Your task to perform on an android device: Go to Reddit.com Image 0: 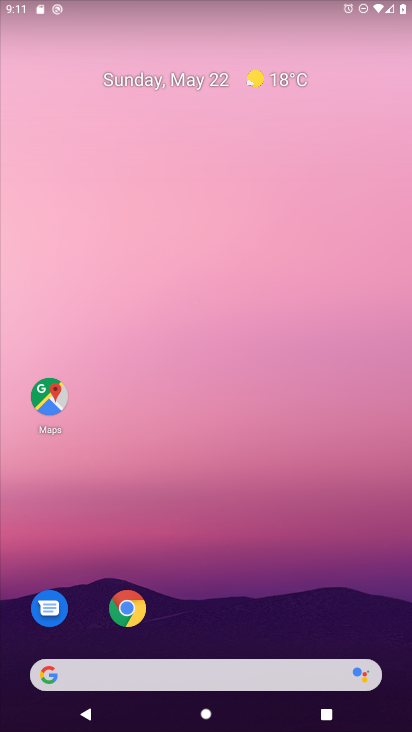
Step 0: click (126, 609)
Your task to perform on an android device: Go to Reddit.com Image 1: 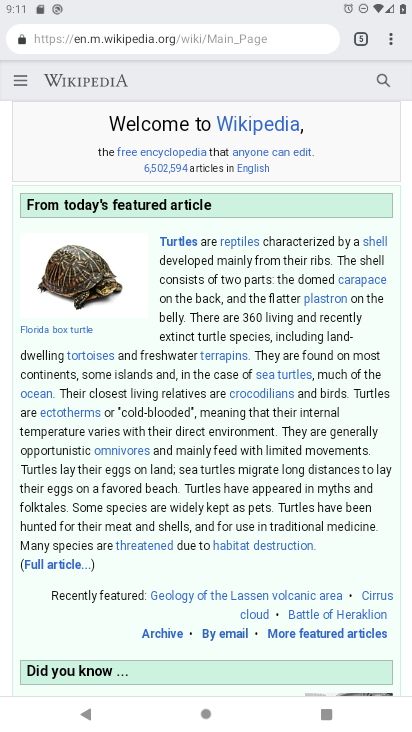
Step 1: click (391, 45)
Your task to perform on an android device: Go to Reddit.com Image 2: 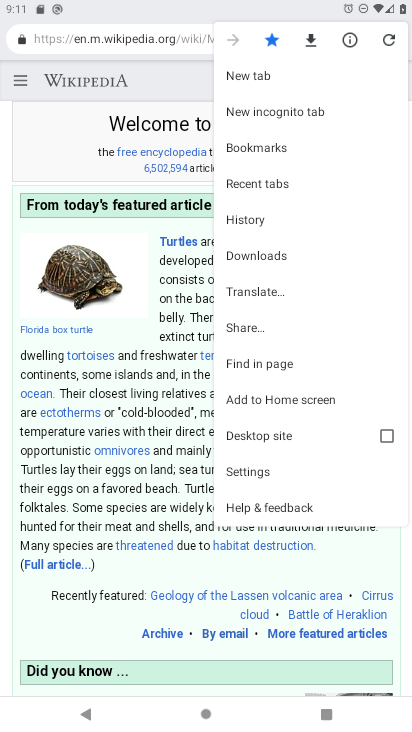
Step 2: click (253, 72)
Your task to perform on an android device: Go to Reddit.com Image 3: 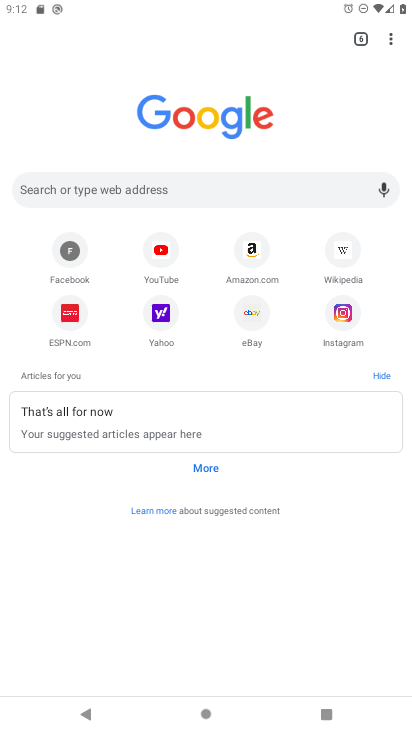
Step 3: click (158, 190)
Your task to perform on an android device: Go to Reddit.com Image 4: 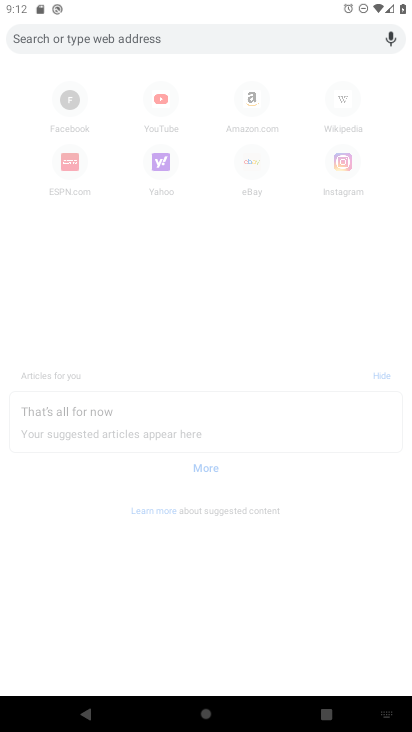
Step 4: type "Reddit.com"
Your task to perform on an android device: Go to Reddit.com Image 5: 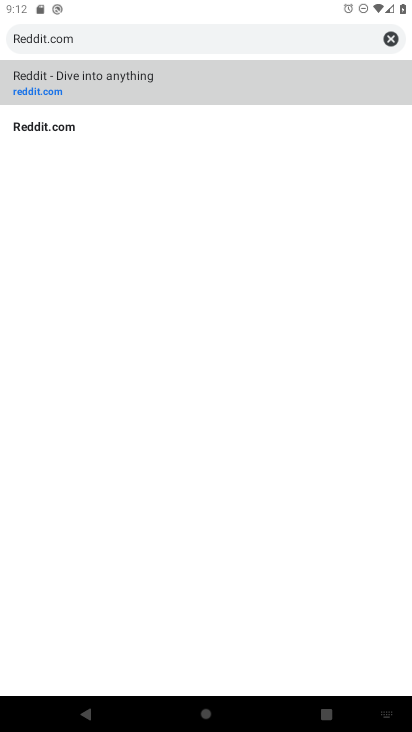
Step 5: click (55, 74)
Your task to perform on an android device: Go to Reddit.com Image 6: 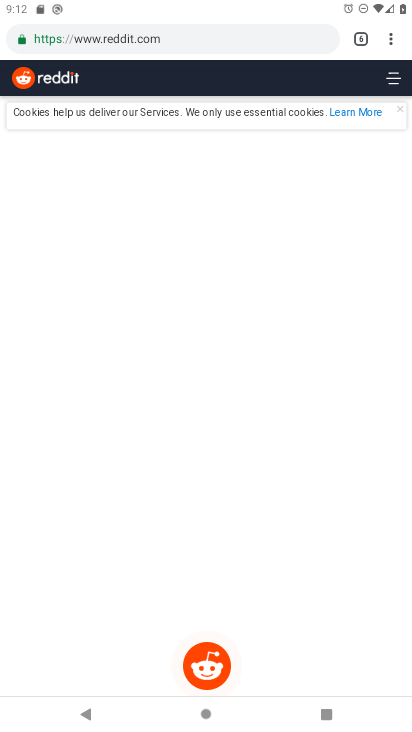
Step 6: task complete